Your task to perform on an android device: toggle data saver in the chrome app Image 0: 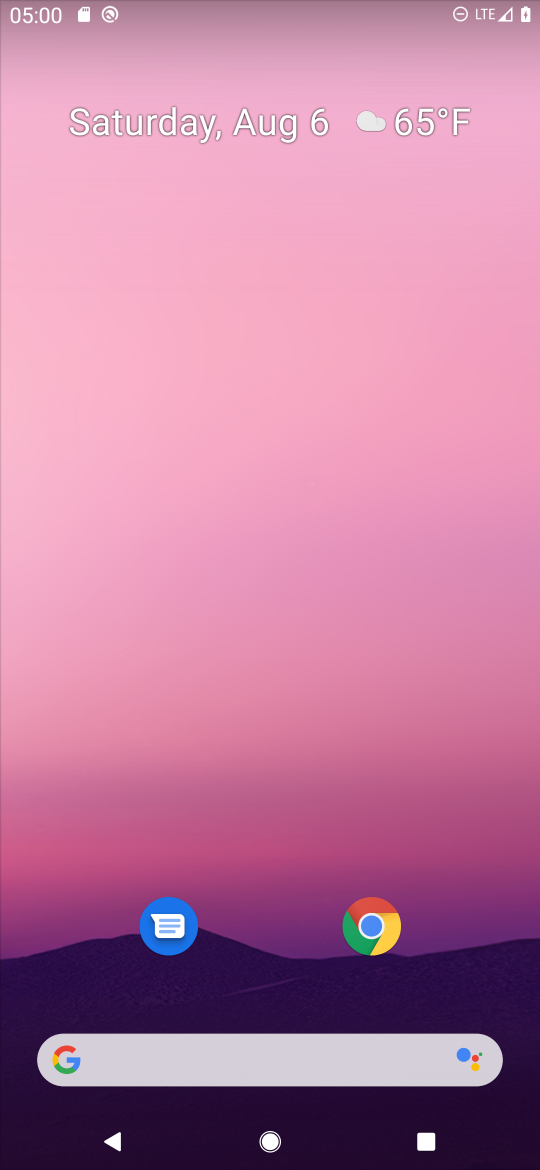
Step 0: click (392, 938)
Your task to perform on an android device: toggle data saver in the chrome app Image 1: 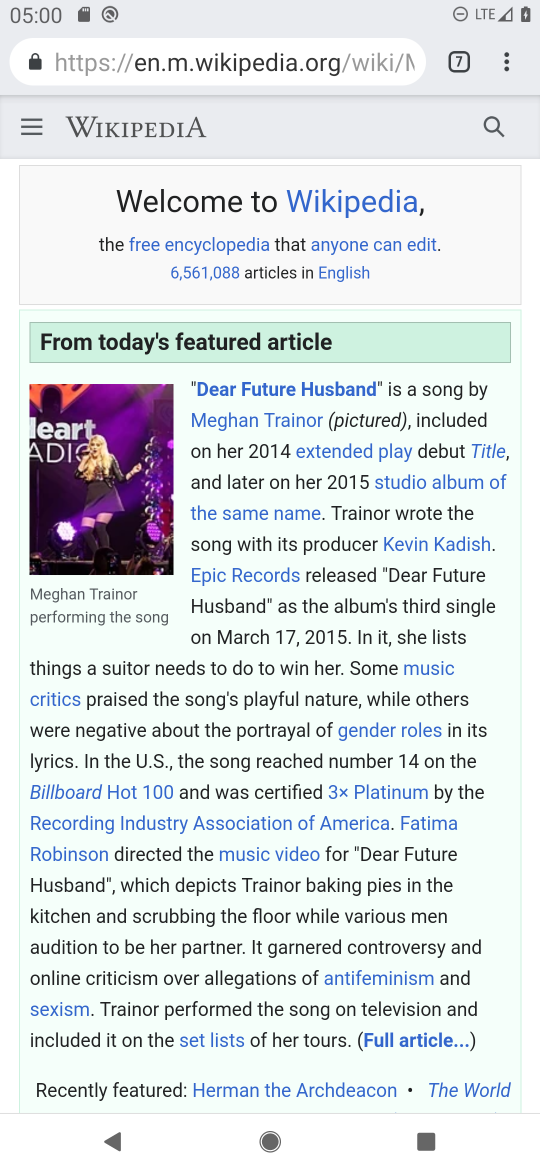
Step 1: click (500, 71)
Your task to perform on an android device: toggle data saver in the chrome app Image 2: 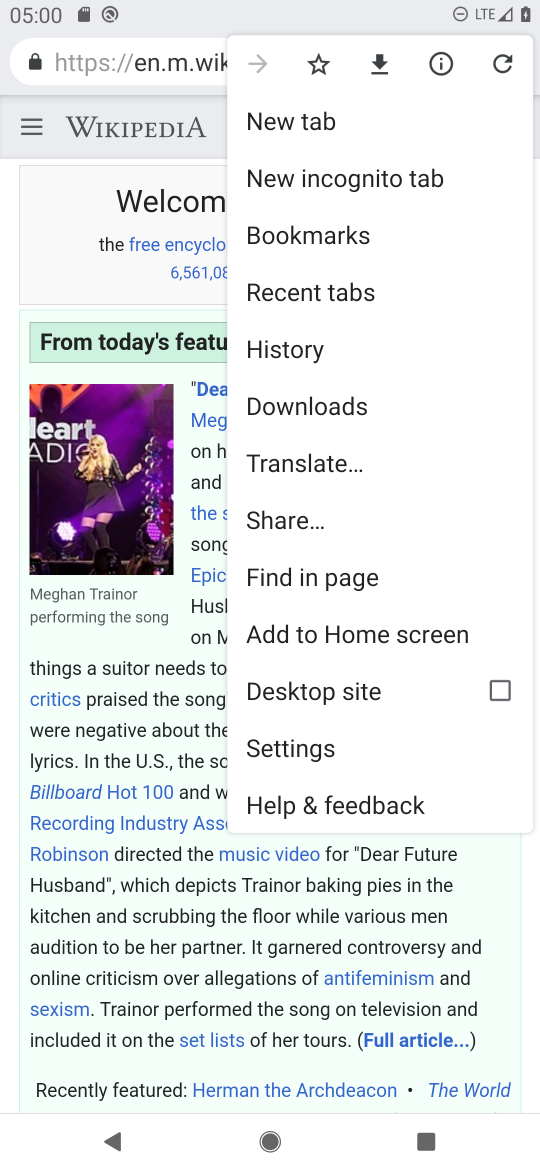
Step 2: click (325, 734)
Your task to perform on an android device: toggle data saver in the chrome app Image 3: 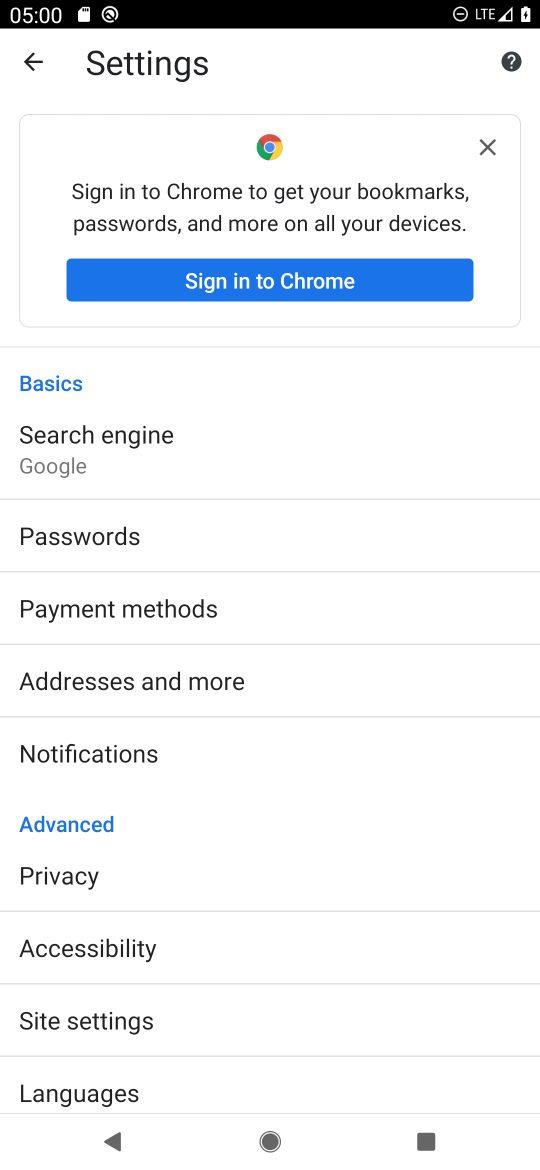
Step 3: drag from (214, 977) to (238, 530)
Your task to perform on an android device: toggle data saver in the chrome app Image 4: 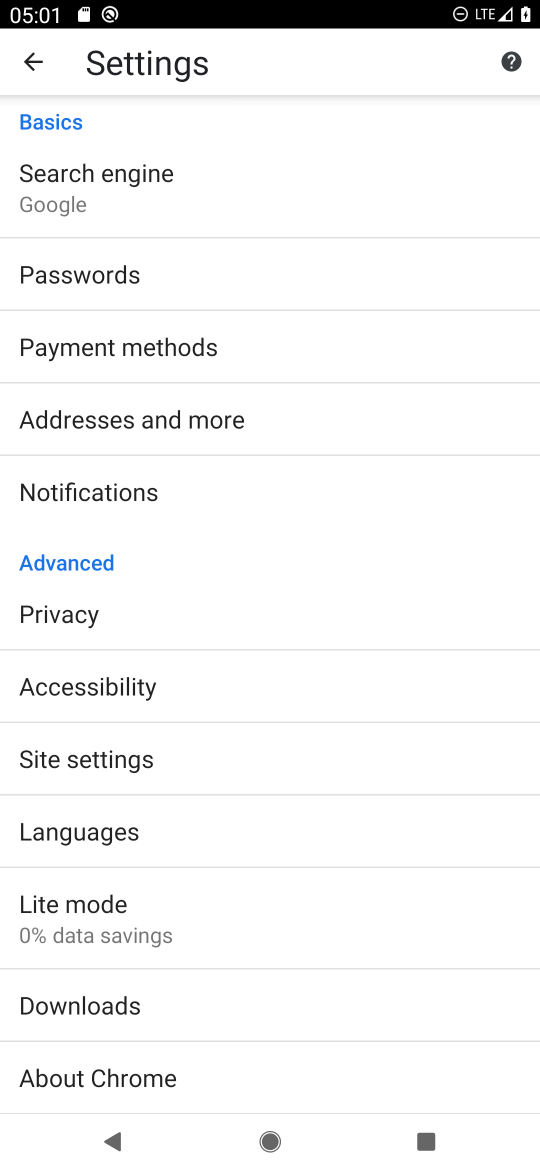
Step 4: click (171, 932)
Your task to perform on an android device: toggle data saver in the chrome app Image 5: 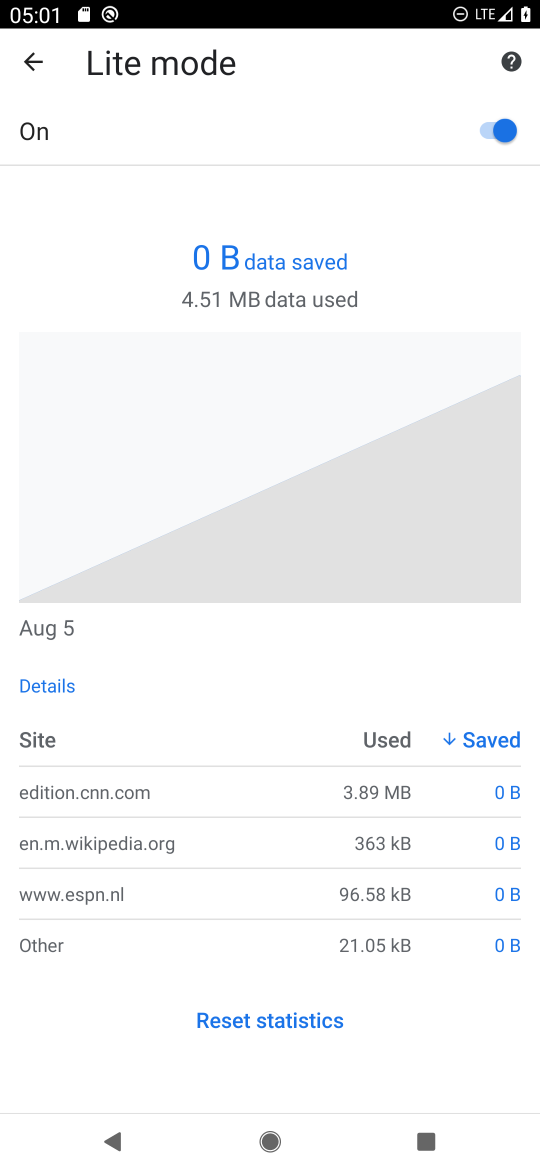
Step 5: click (489, 128)
Your task to perform on an android device: toggle data saver in the chrome app Image 6: 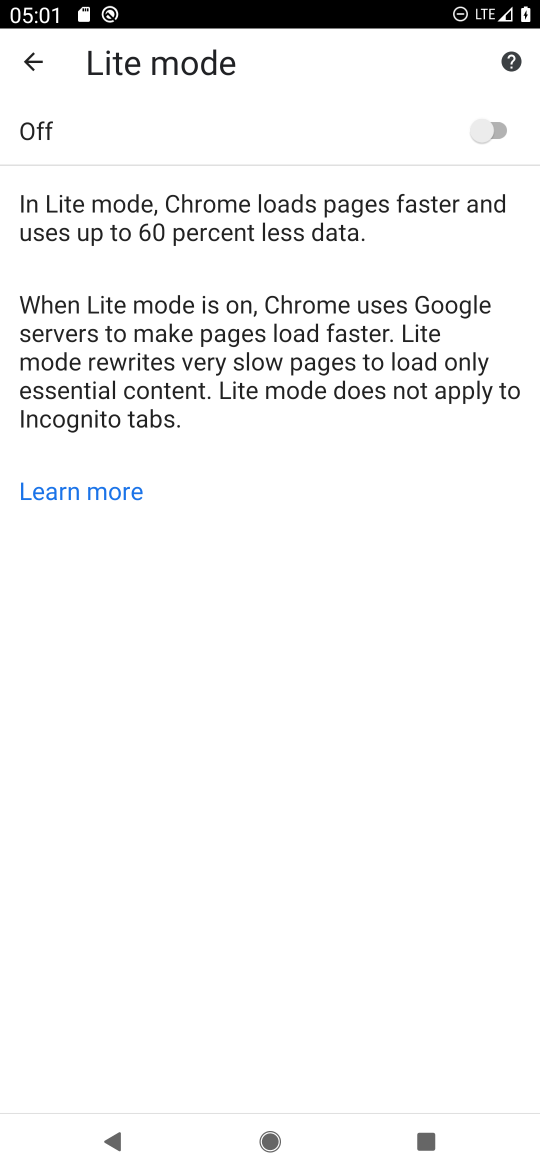
Step 6: task complete